Your task to perform on an android device: add a contact in the contacts app Image 0: 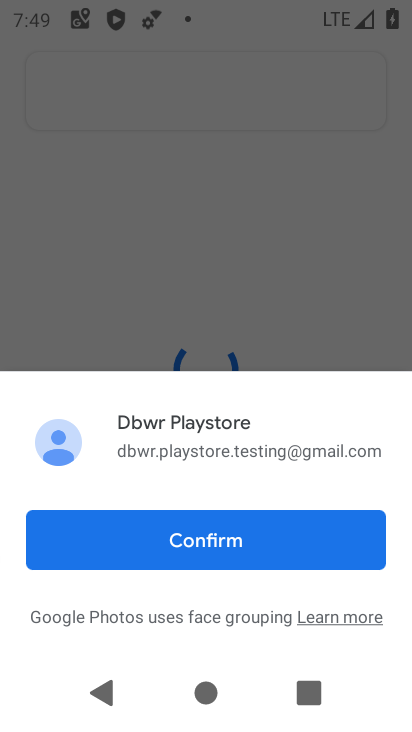
Step 0: press home button
Your task to perform on an android device: add a contact in the contacts app Image 1: 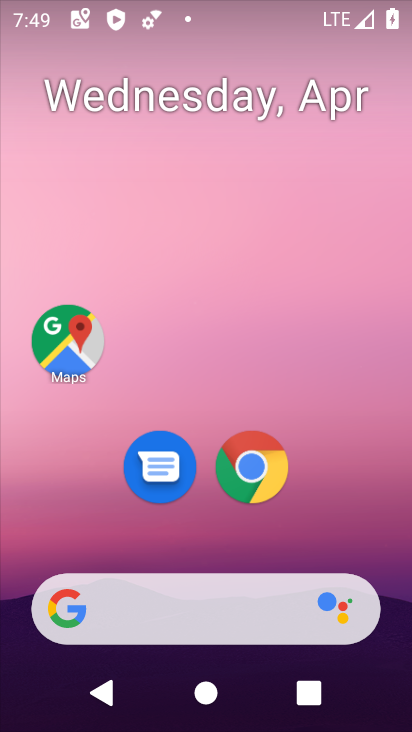
Step 1: drag from (200, 552) to (163, 133)
Your task to perform on an android device: add a contact in the contacts app Image 2: 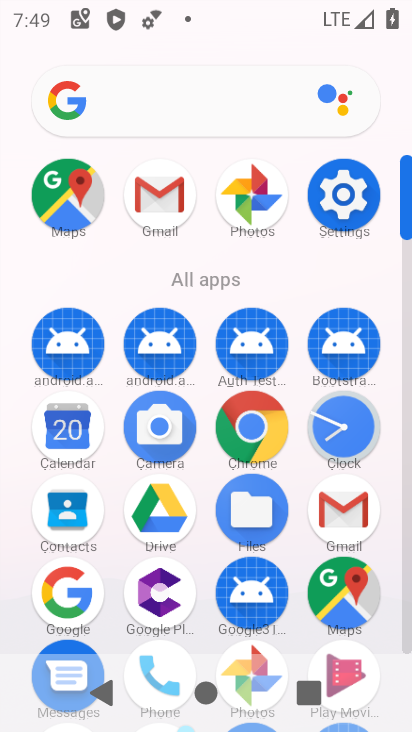
Step 2: click (145, 641)
Your task to perform on an android device: add a contact in the contacts app Image 3: 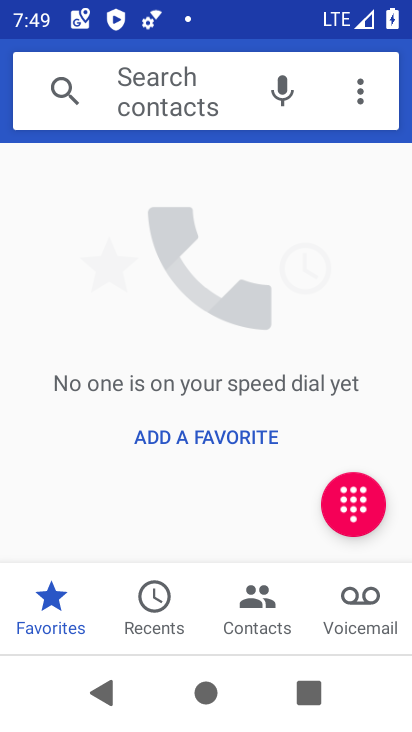
Step 3: click (233, 617)
Your task to perform on an android device: add a contact in the contacts app Image 4: 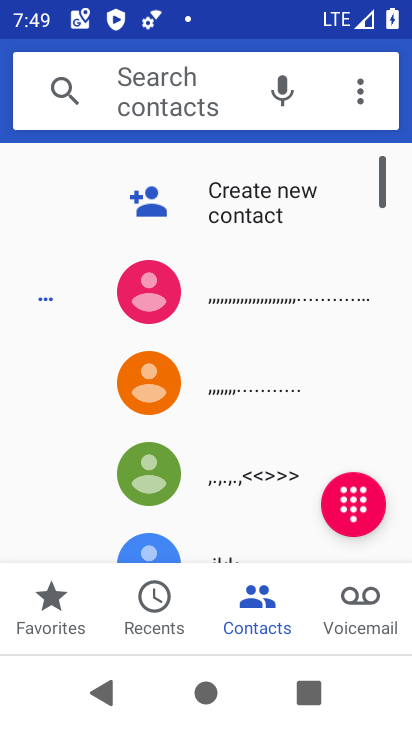
Step 4: click (287, 193)
Your task to perform on an android device: add a contact in the contacts app Image 5: 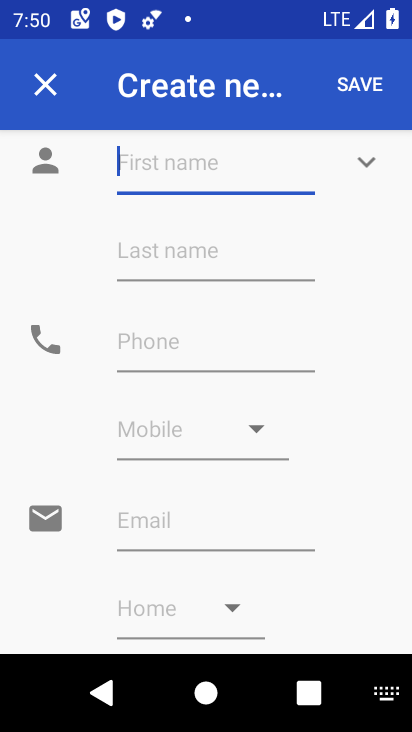
Step 5: type "xxx"
Your task to perform on an android device: add a contact in the contacts app Image 6: 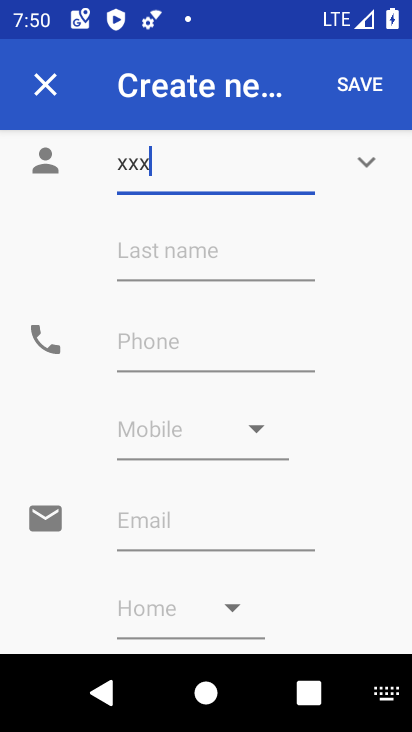
Step 6: type ""
Your task to perform on an android device: add a contact in the contacts app Image 7: 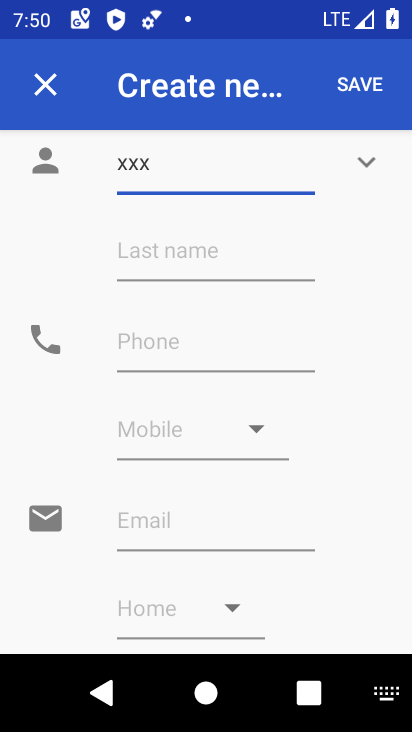
Step 7: click (166, 345)
Your task to perform on an android device: add a contact in the contacts app Image 8: 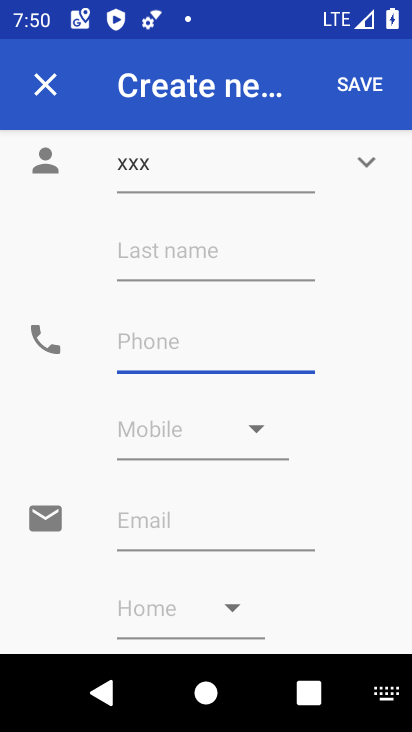
Step 8: type "7654"
Your task to perform on an android device: add a contact in the contacts app Image 9: 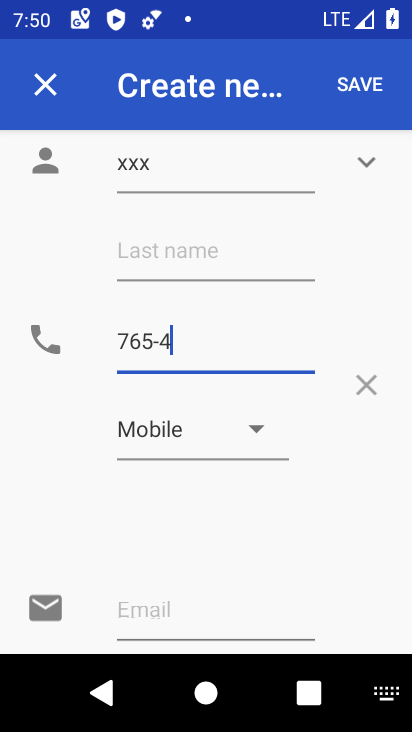
Step 9: type ""
Your task to perform on an android device: add a contact in the contacts app Image 10: 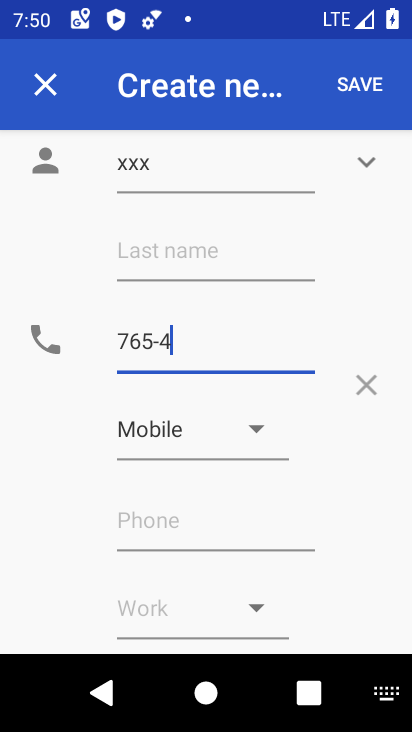
Step 10: click (375, 80)
Your task to perform on an android device: add a contact in the contacts app Image 11: 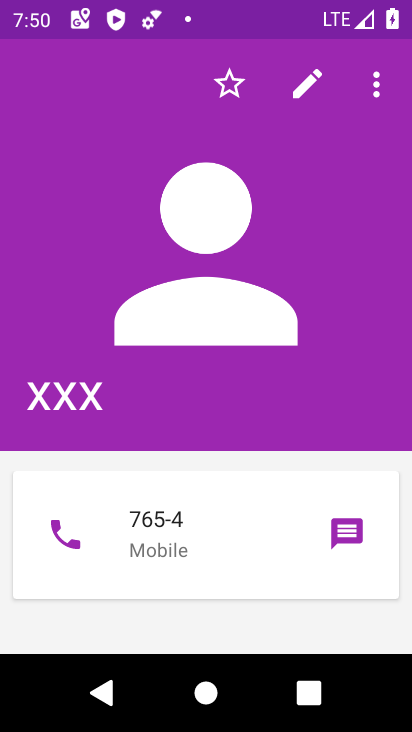
Step 11: task complete